Your task to perform on an android device: turn off translation in the chrome app Image 0: 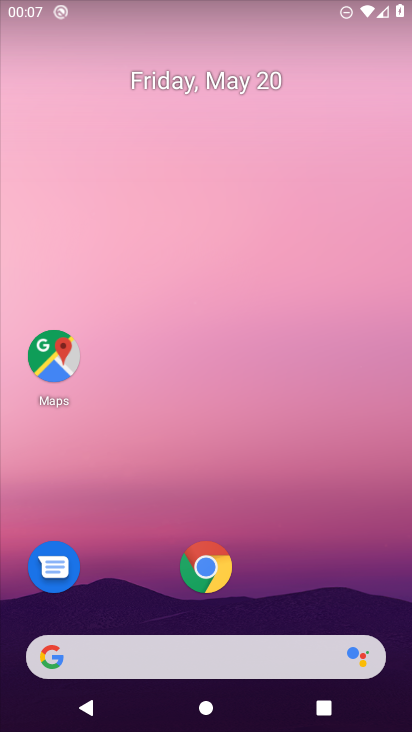
Step 0: press home button
Your task to perform on an android device: turn off translation in the chrome app Image 1: 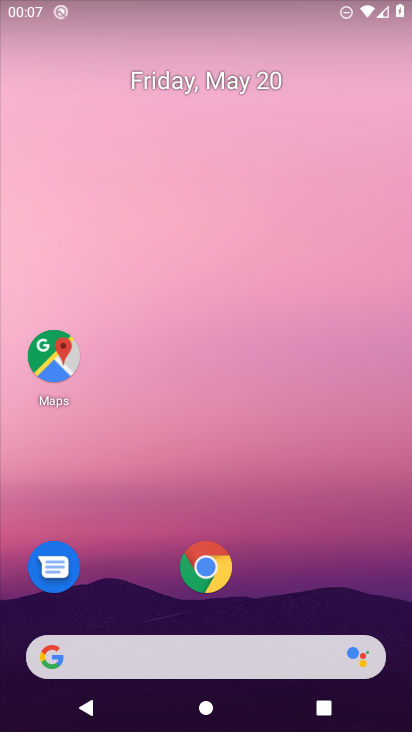
Step 1: click (203, 558)
Your task to perform on an android device: turn off translation in the chrome app Image 2: 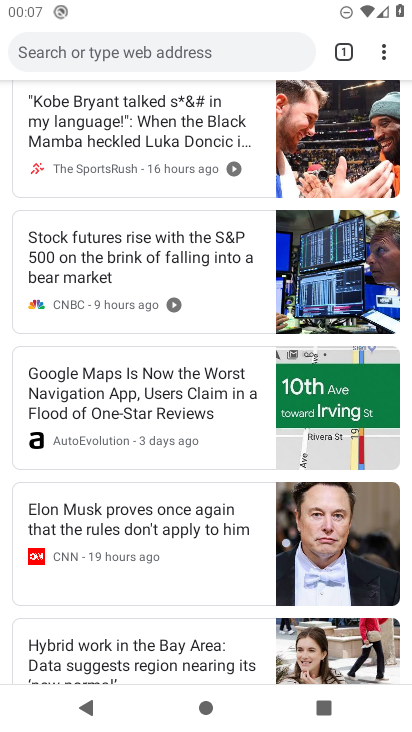
Step 2: click (380, 49)
Your task to perform on an android device: turn off translation in the chrome app Image 3: 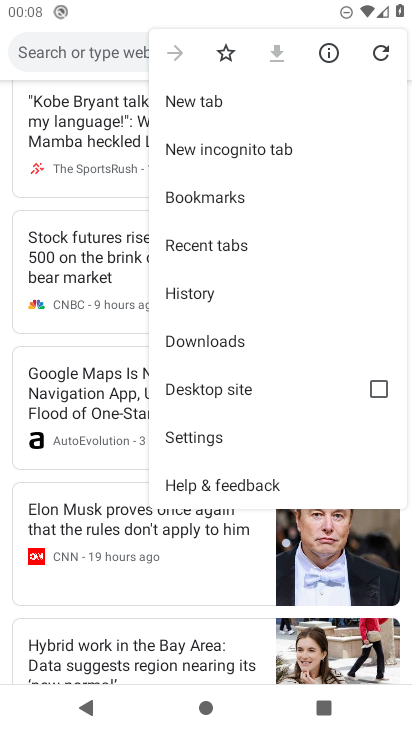
Step 3: click (232, 436)
Your task to perform on an android device: turn off translation in the chrome app Image 4: 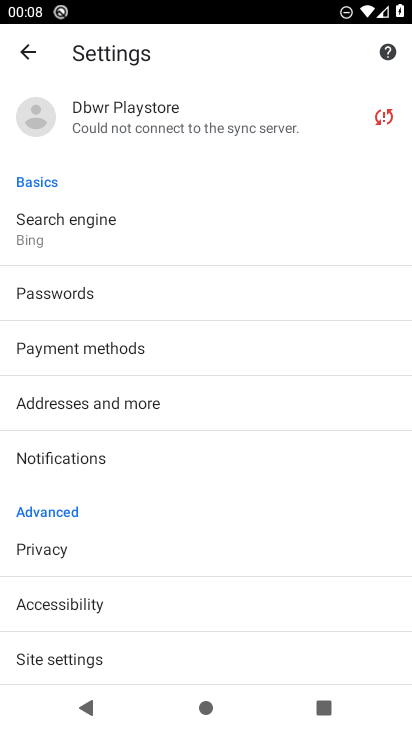
Step 4: drag from (163, 608) to (226, 97)
Your task to perform on an android device: turn off translation in the chrome app Image 5: 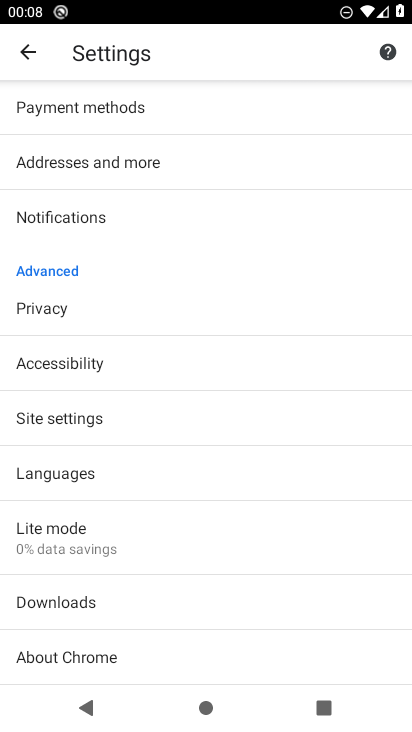
Step 5: click (111, 473)
Your task to perform on an android device: turn off translation in the chrome app Image 6: 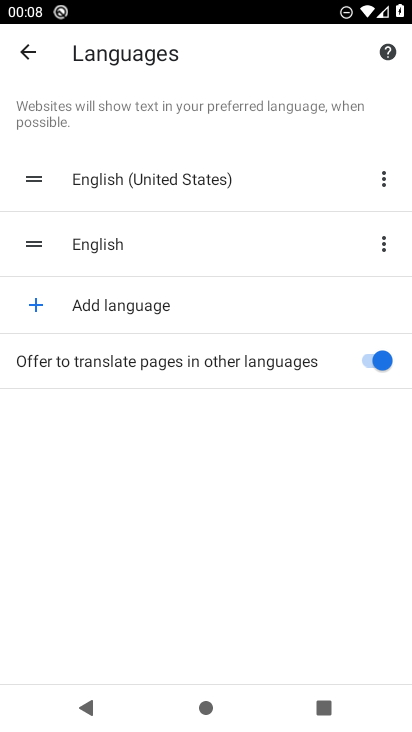
Step 6: click (371, 360)
Your task to perform on an android device: turn off translation in the chrome app Image 7: 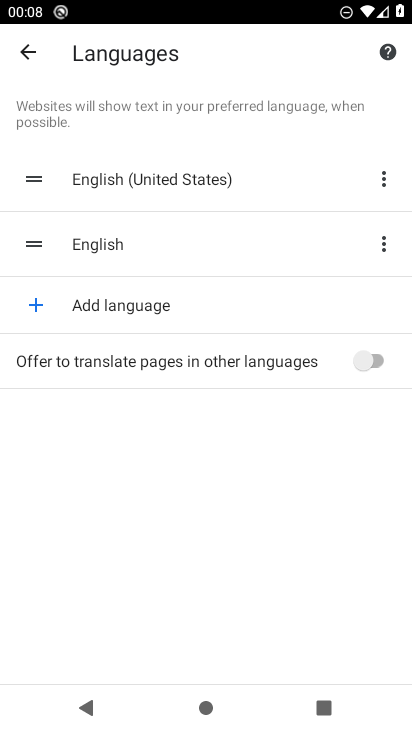
Step 7: task complete